Your task to perform on an android device: turn off airplane mode Image 0: 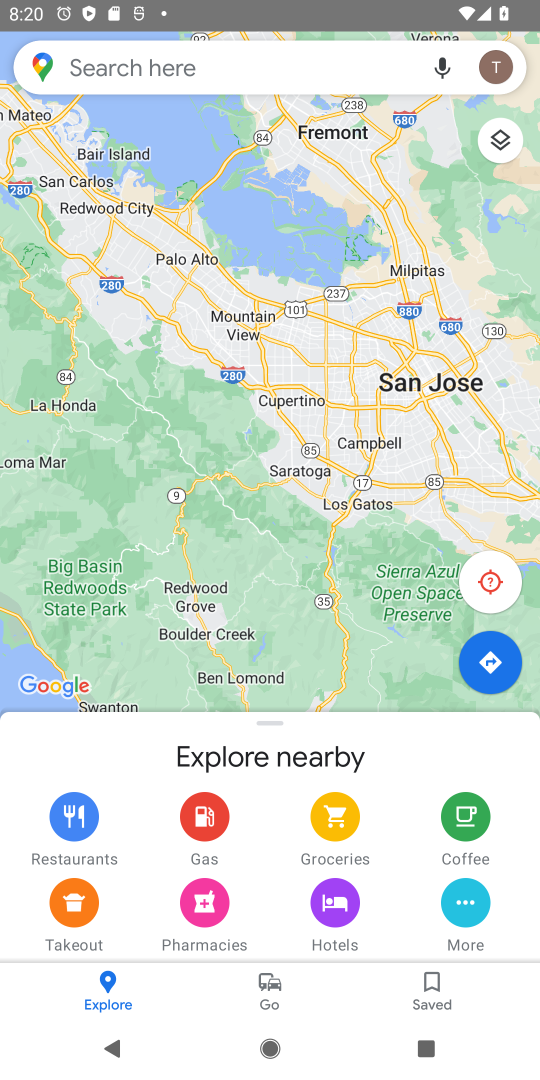
Step 0: press back button
Your task to perform on an android device: turn off airplane mode Image 1: 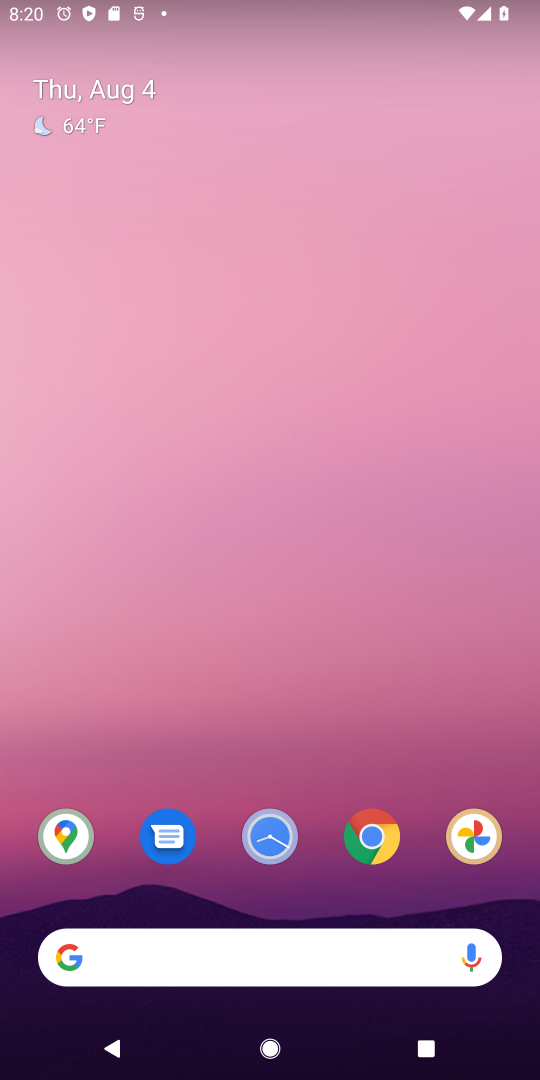
Step 1: task complete